Your task to perform on an android device: Go to Amazon Image 0: 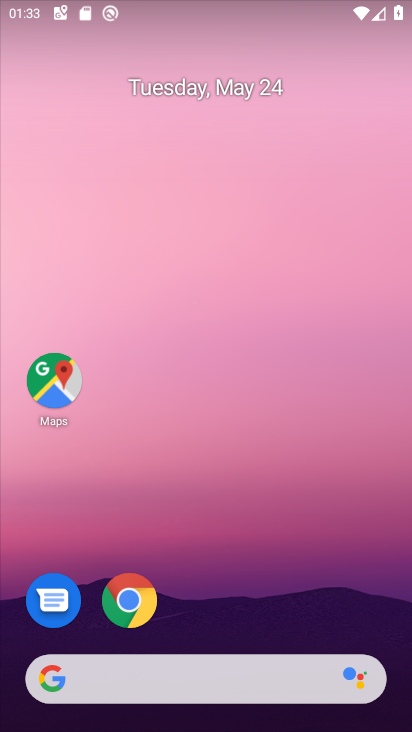
Step 0: click (146, 595)
Your task to perform on an android device: Go to Amazon Image 1: 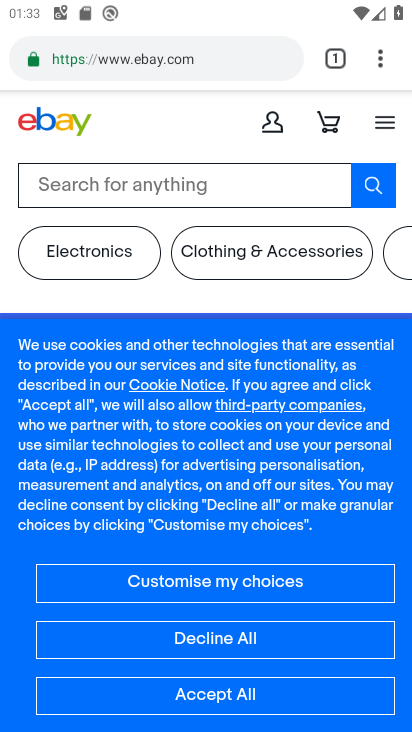
Step 1: click (326, 54)
Your task to perform on an android device: Go to Amazon Image 2: 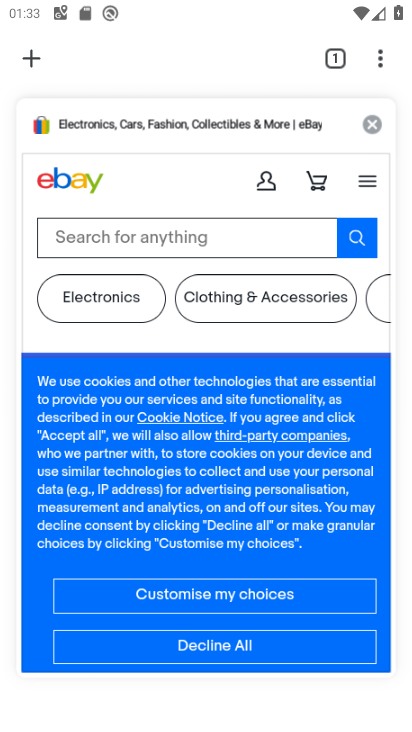
Step 2: click (26, 69)
Your task to perform on an android device: Go to Amazon Image 3: 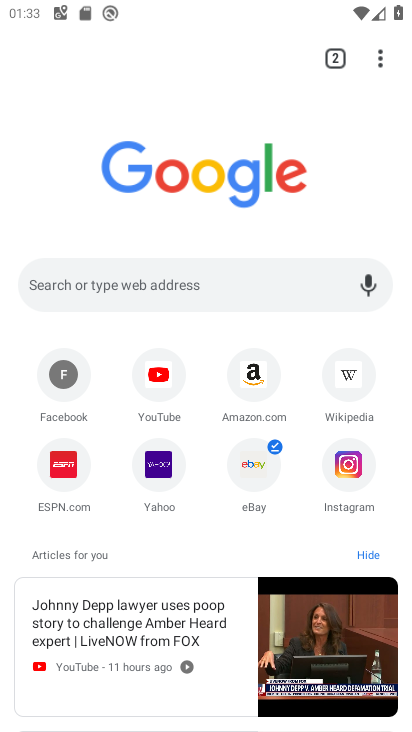
Step 3: click (253, 391)
Your task to perform on an android device: Go to Amazon Image 4: 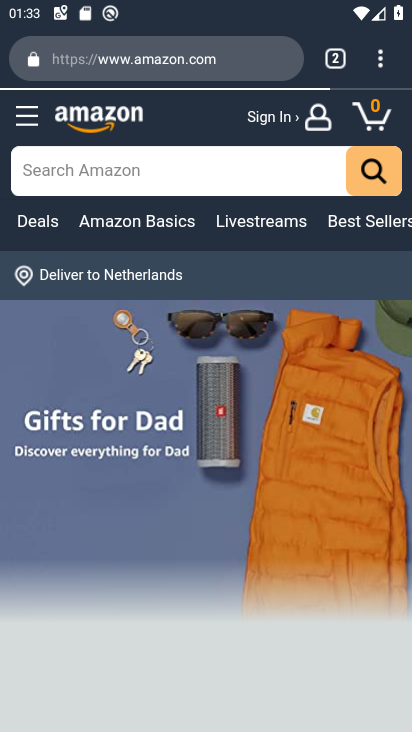
Step 4: task complete